Your task to perform on an android device: Go to Google Image 0: 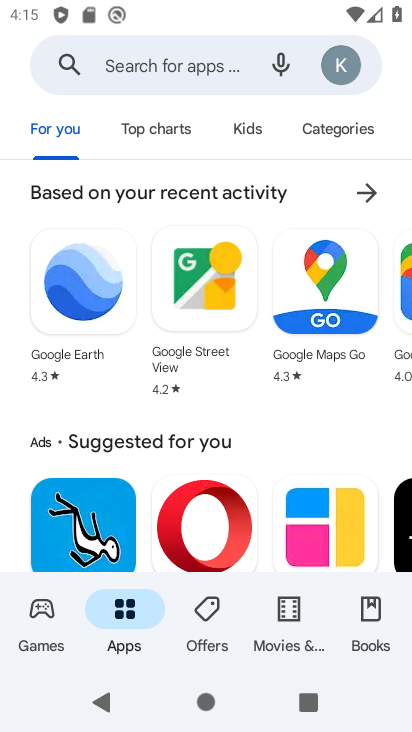
Step 0: press home button
Your task to perform on an android device: Go to Google Image 1: 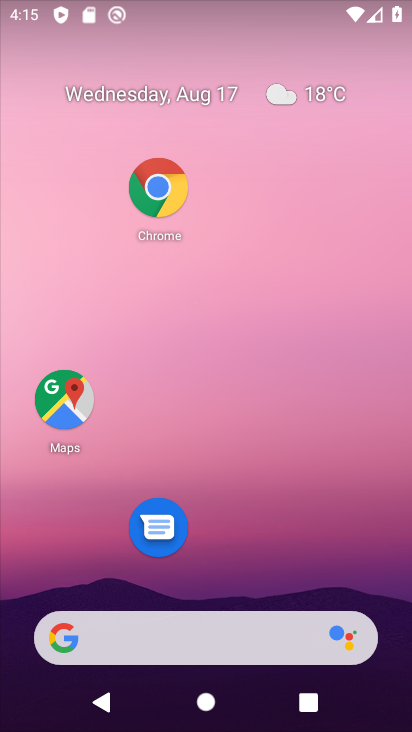
Step 1: click (192, 650)
Your task to perform on an android device: Go to Google Image 2: 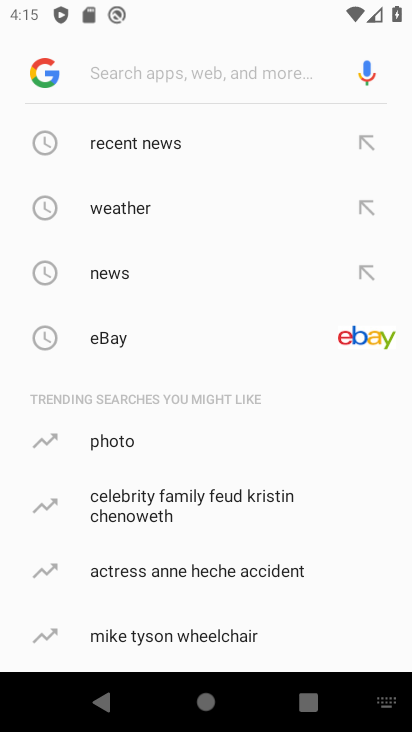
Step 2: task complete